Your task to perform on an android device: Go to calendar. Show me events next week Image 0: 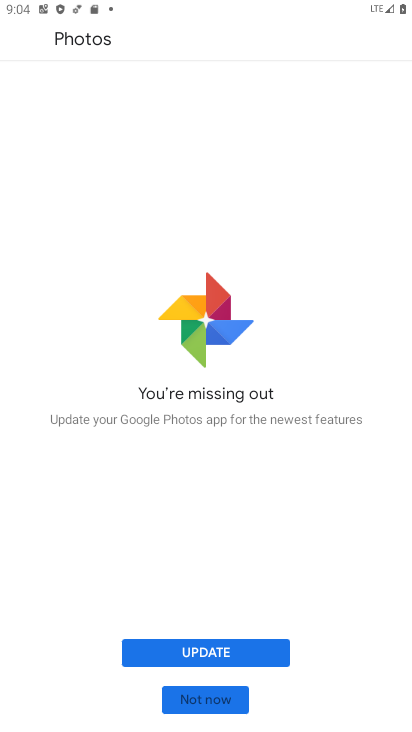
Step 0: press home button
Your task to perform on an android device: Go to calendar. Show me events next week Image 1: 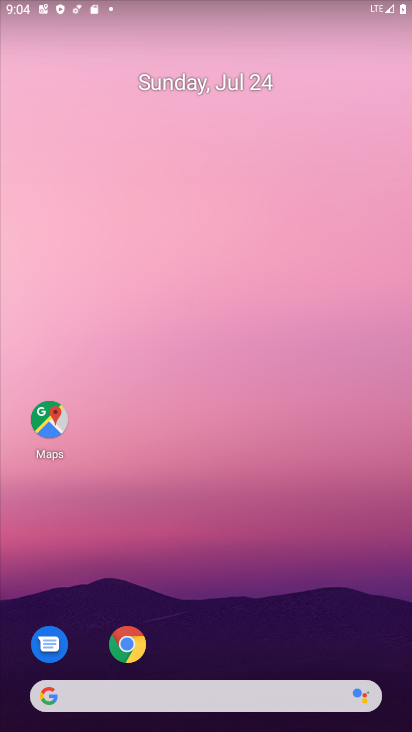
Step 1: drag from (12, 545) to (243, 146)
Your task to perform on an android device: Go to calendar. Show me events next week Image 2: 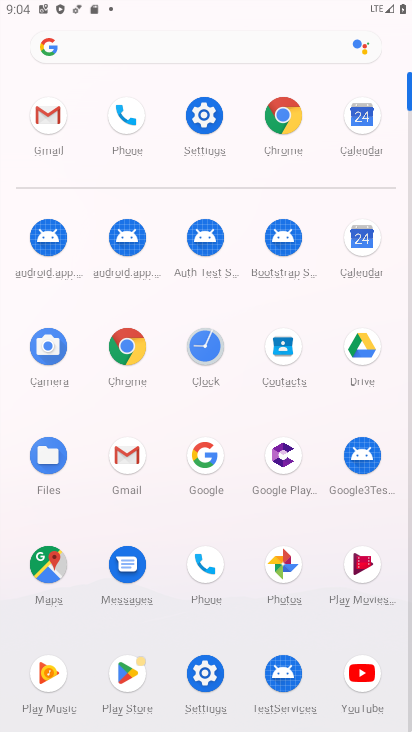
Step 2: click (363, 245)
Your task to perform on an android device: Go to calendar. Show me events next week Image 3: 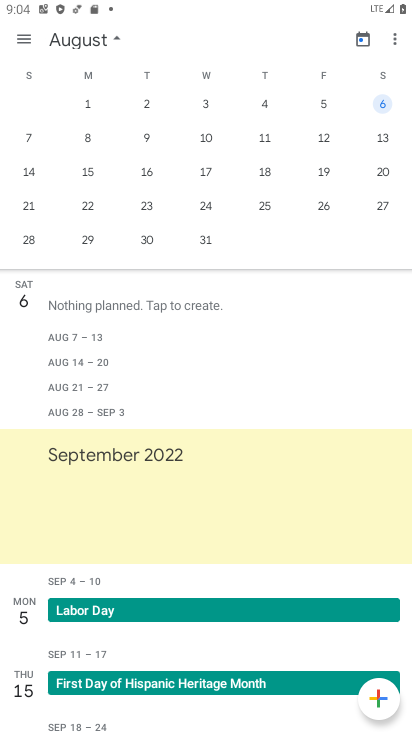
Step 3: click (139, 107)
Your task to perform on an android device: Go to calendar. Show me events next week Image 4: 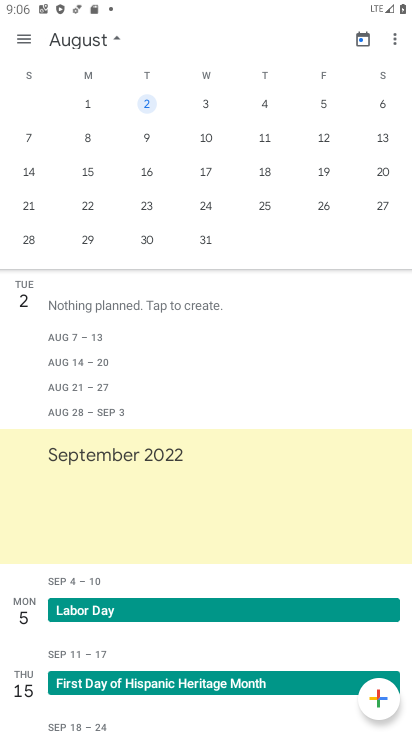
Step 4: task complete